Your task to perform on an android device: Add "alienware area 51" to the cart on target.com Image 0: 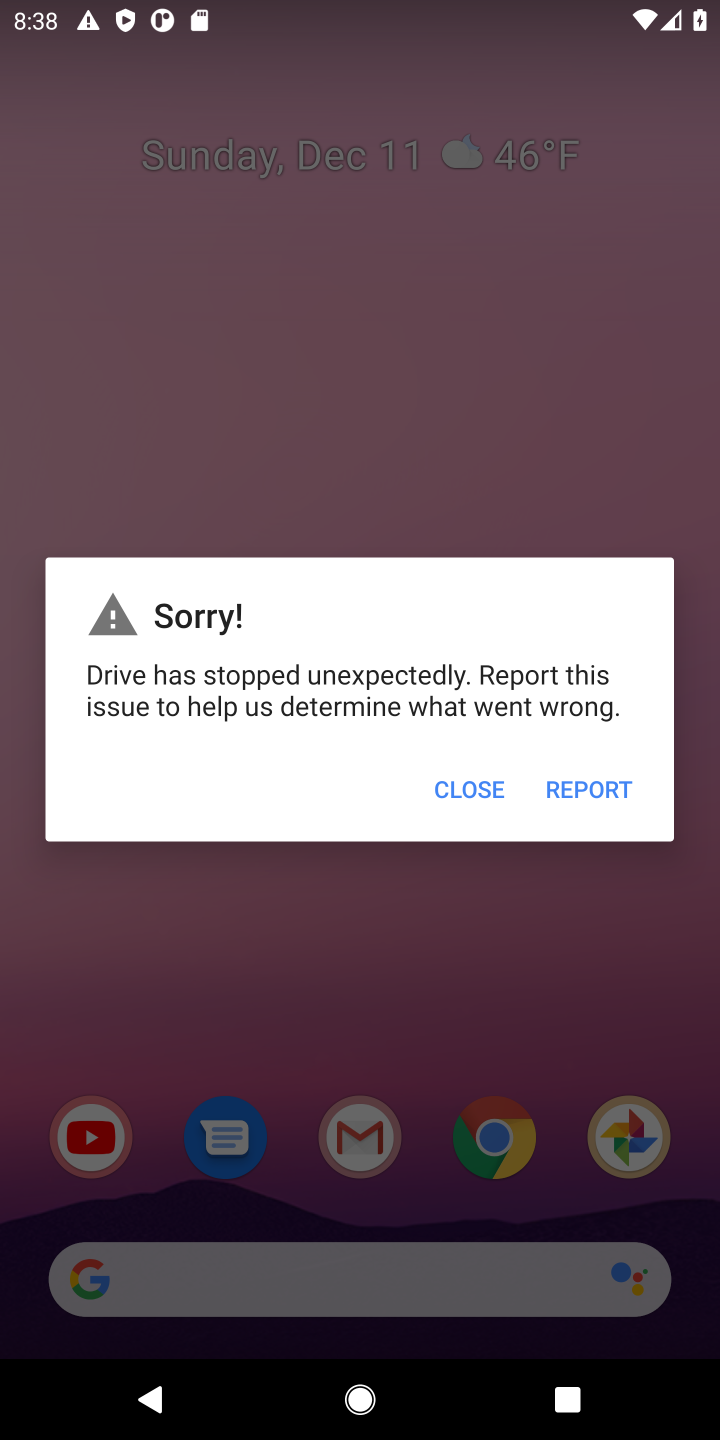
Step 0: press home button
Your task to perform on an android device: Add "alienware area 51" to the cart on target.com Image 1: 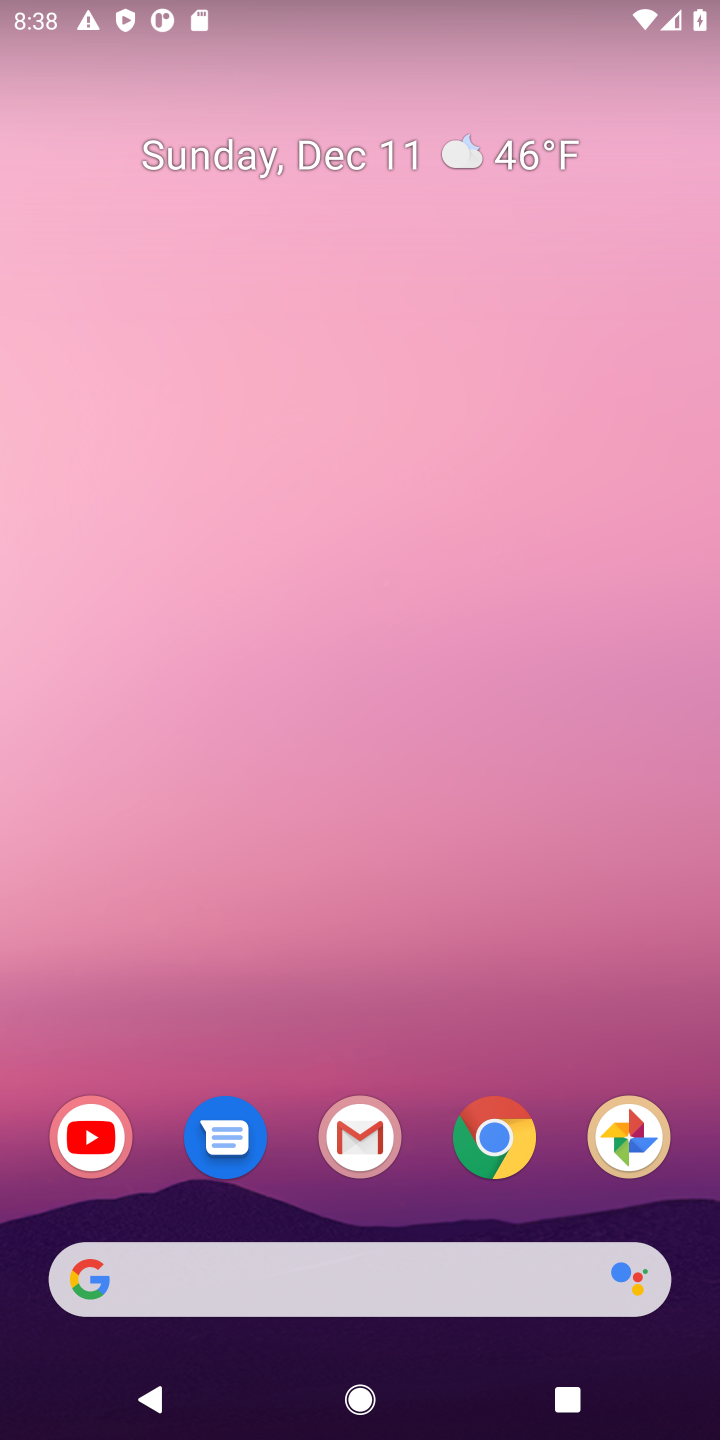
Step 1: click (484, 1134)
Your task to perform on an android device: Add "alienware area 51" to the cart on target.com Image 2: 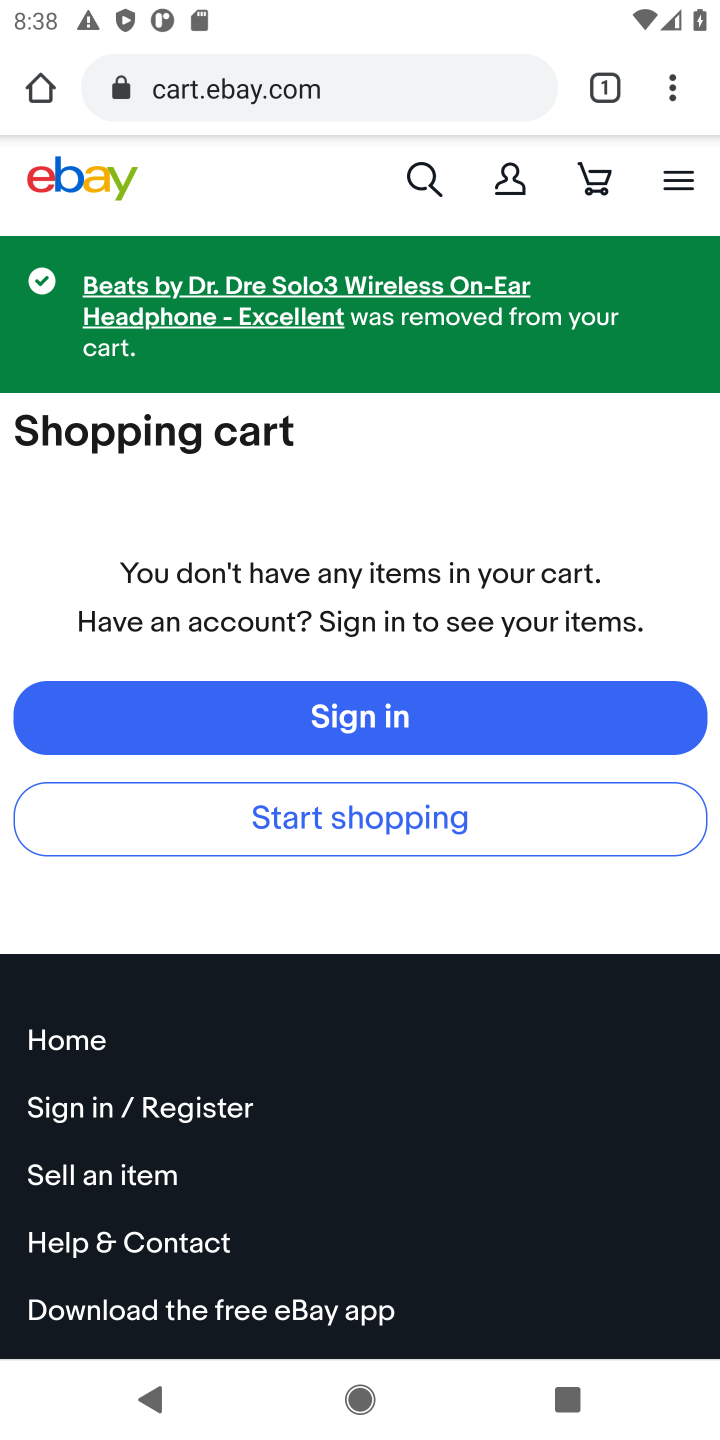
Step 2: click (330, 87)
Your task to perform on an android device: Add "alienware area 51" to the cart on target.com Image 3: 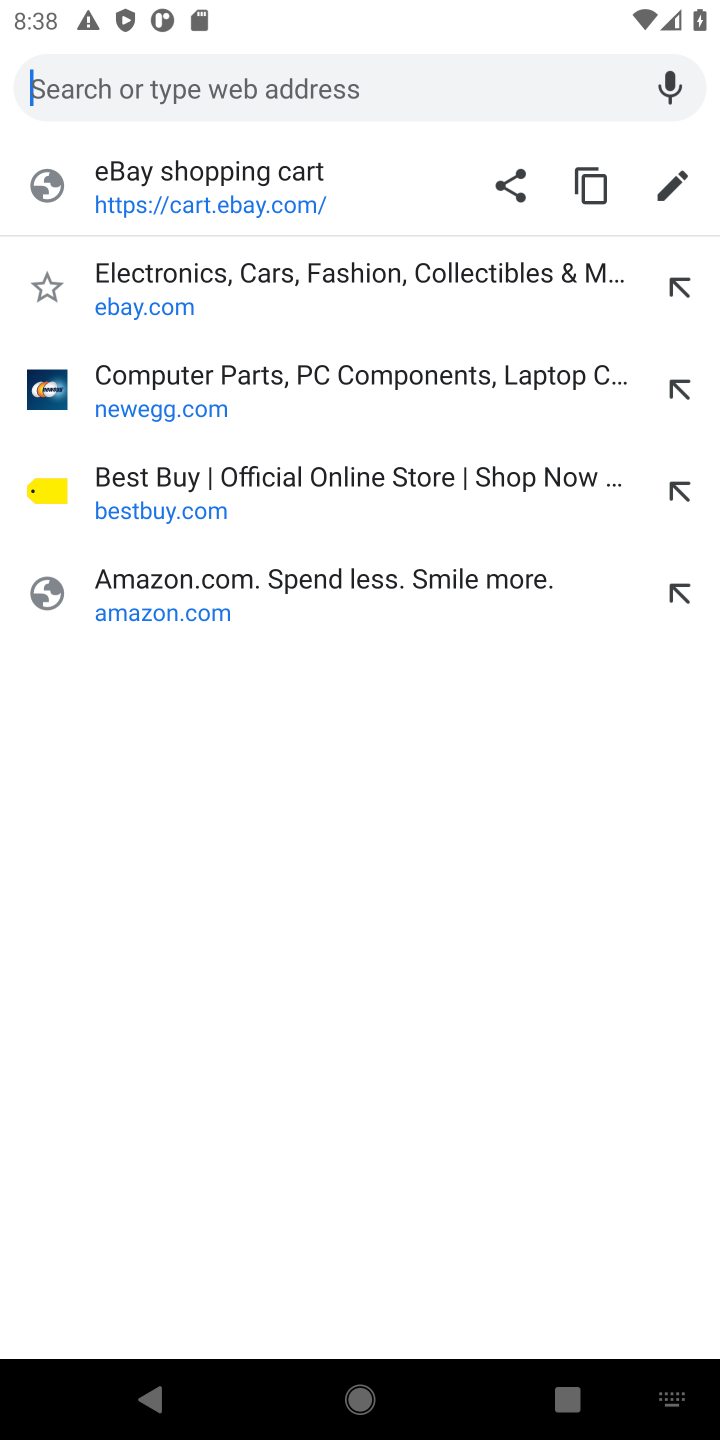
Step 3: type "TARGET"
Your task to perform on an android device: Add "alienware area 51" to the cart on target.com Image 4: 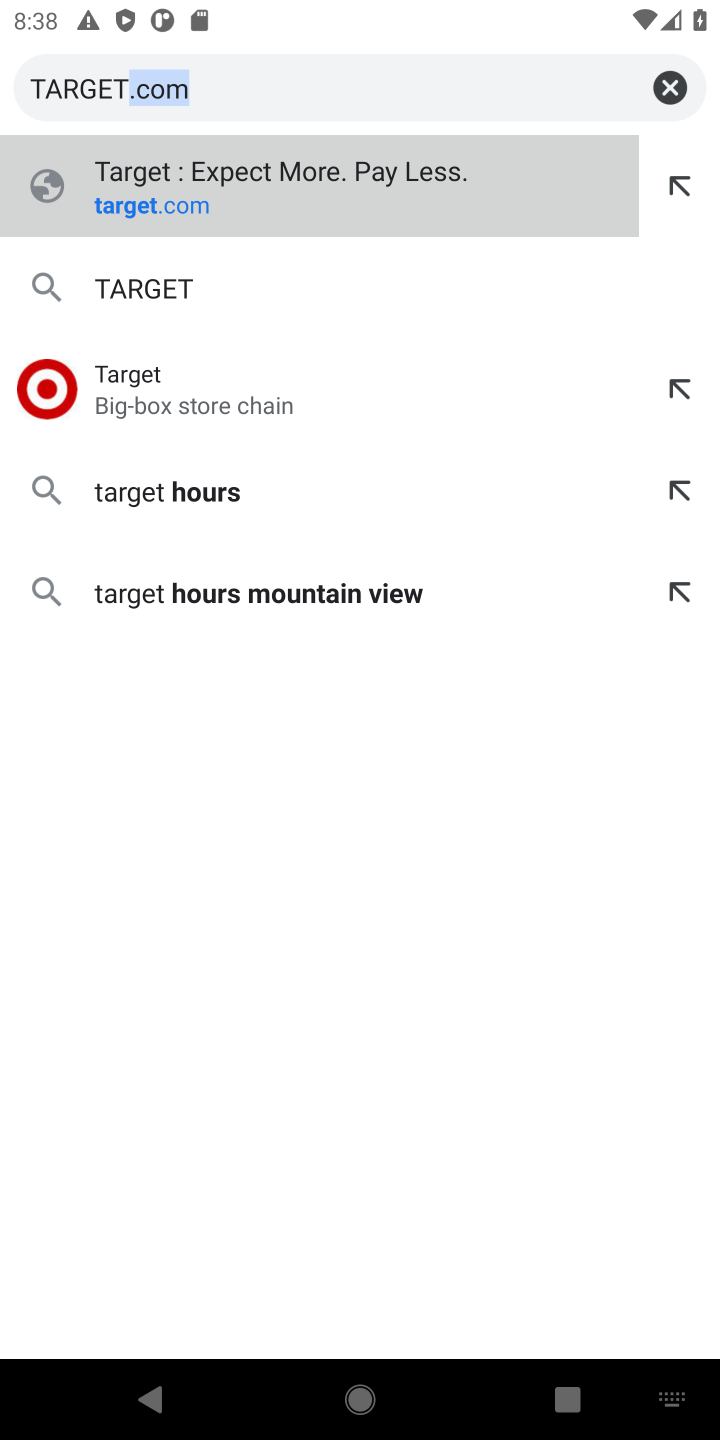
Step 4: click (387, 198)
Your task to perform on an android device: Add "alienware area 51" to the cart on target.com Image 5: 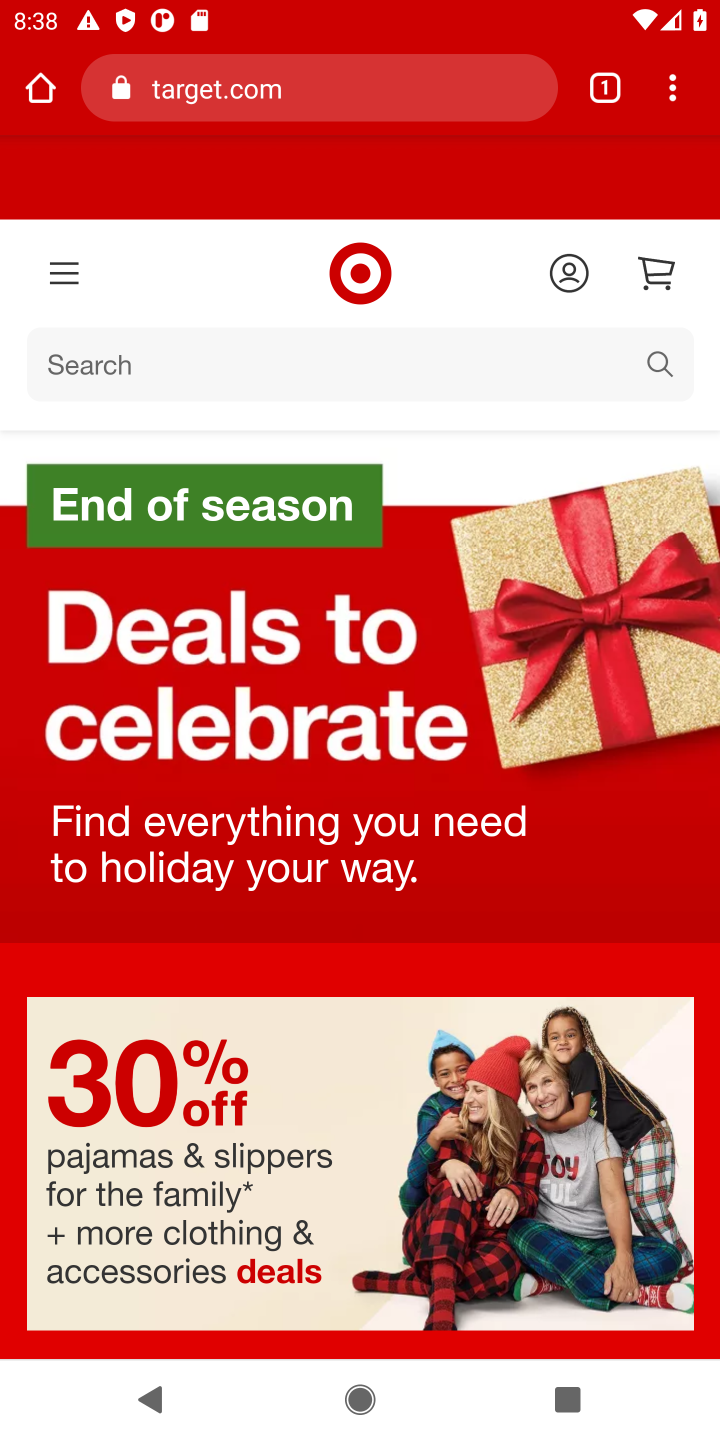
Step 5: click (473, 384)
Your task to perform on an android device: Add "alienware area 51" to the cart on target.com Image 6: 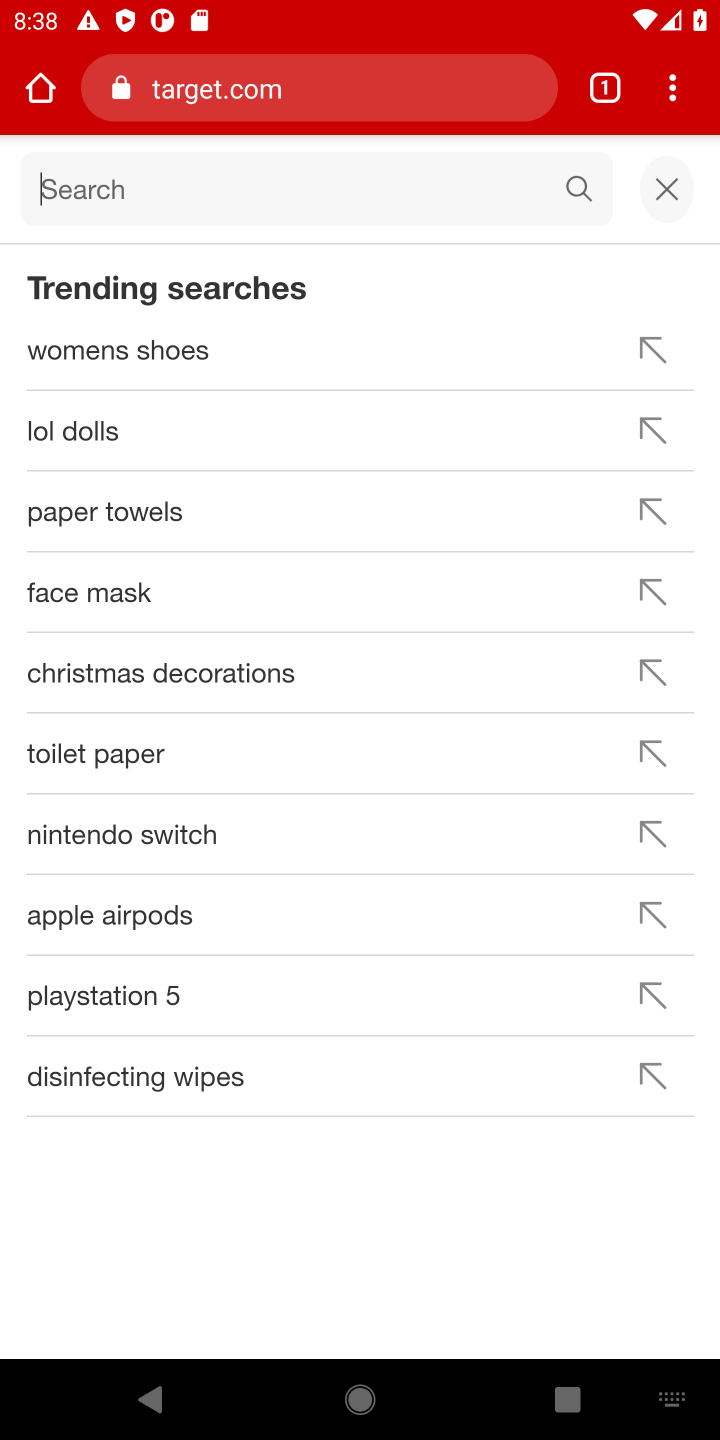
Step 6: type "ALIENWARE AREA 51"
Your task to perform on an android device: Add "alienware area 51" to the cart on target.com Image 7: 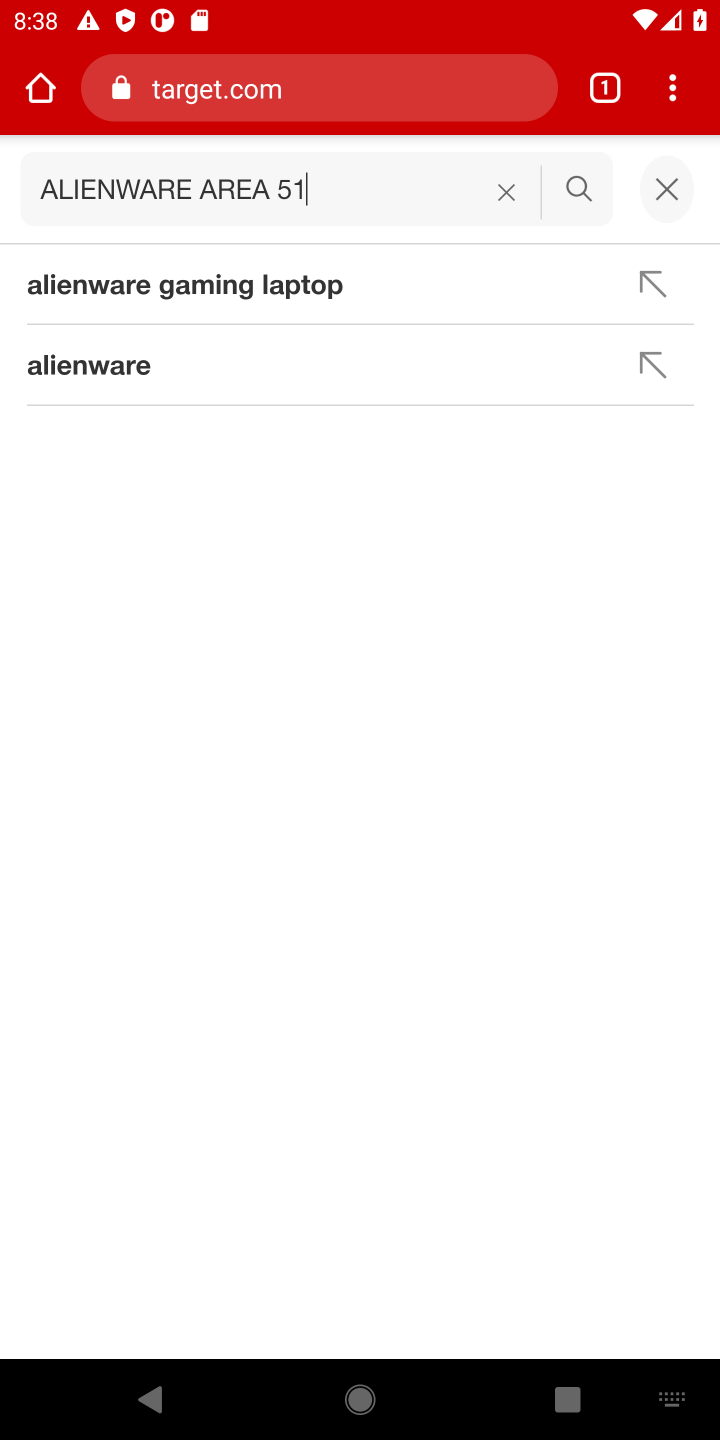
Step 7: click (212, 285)
Your task to perform on an android device: Add "alienware area 51" to the cart on target.com Image 8: 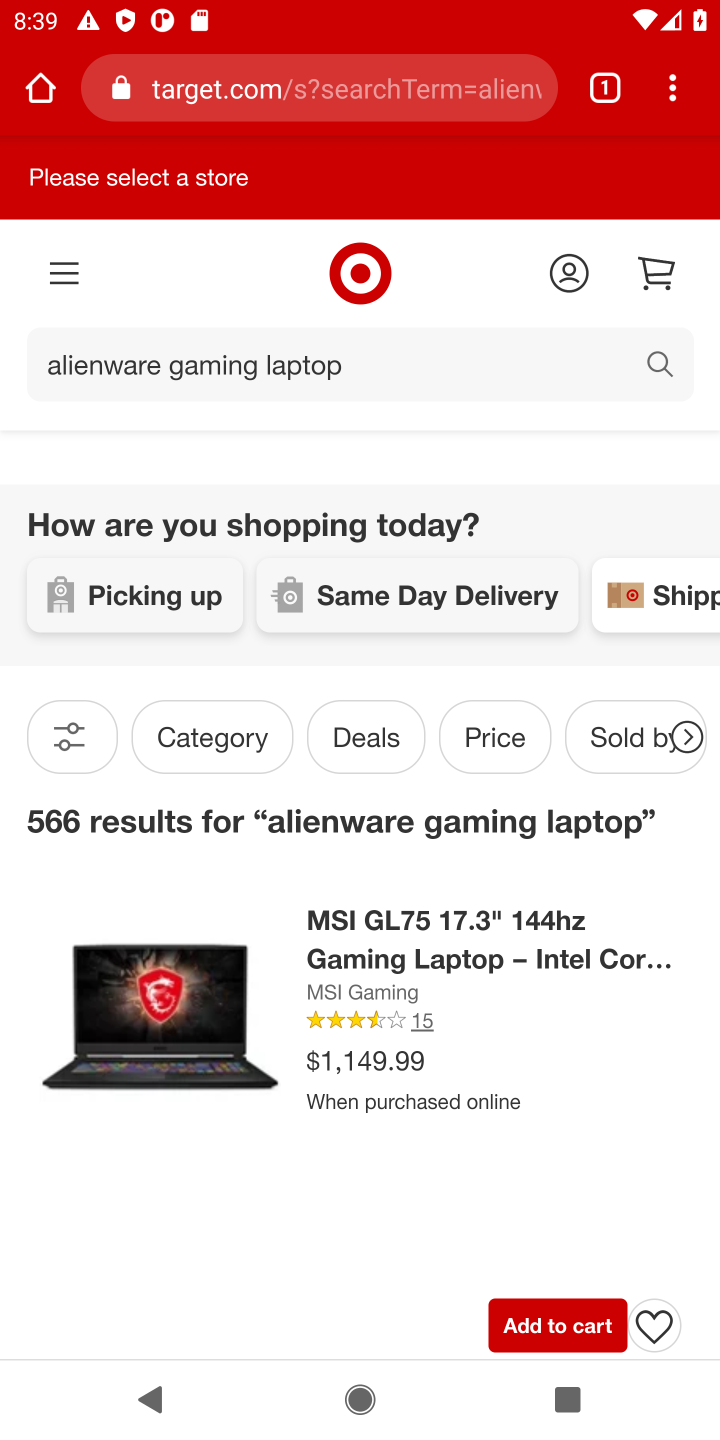
Step 8: click (544, 1320)
Your task to perform on an android device: Add "alienware area 51" to the cart on target.com Image 9: 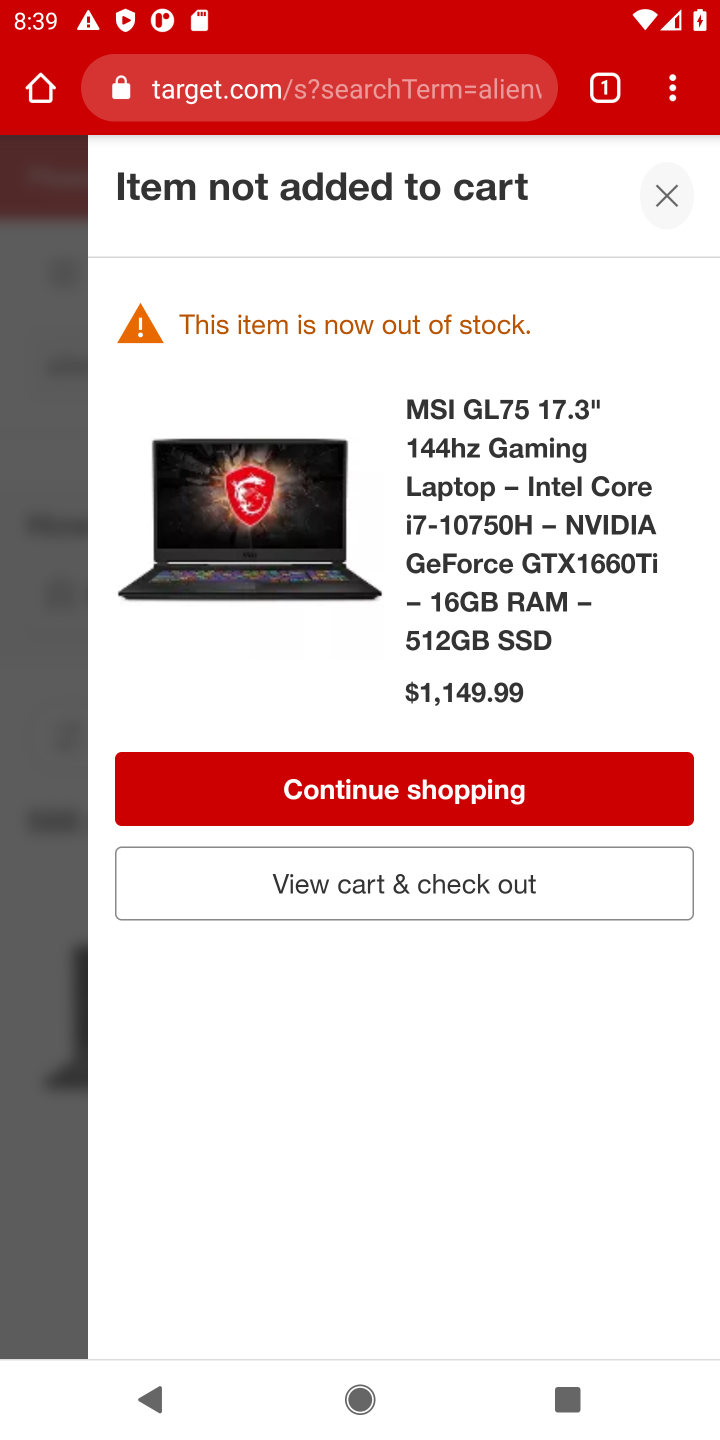
Step 9: task complete